Your task to perform on an android device: Open the Play Movies app and select the watchlist tab. Image 0: 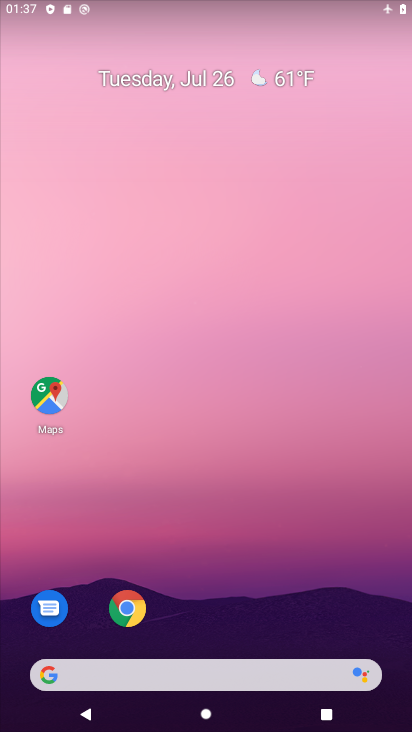
Step 0: drag from (49, 506) to (245, 167)
Your task to perform on an android device: Open the Play Movies app and select the watchlist tab. Image 1: 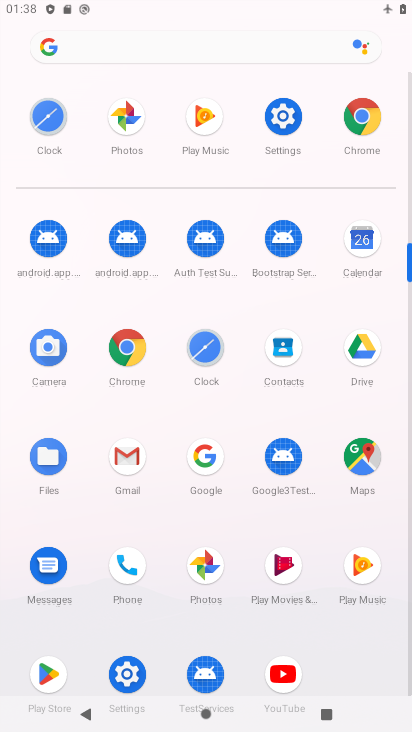
Step 1: click (301, 563)
Your task to perform on an android device: Open the Play Movies app and select the watchlist tab. Image 2: 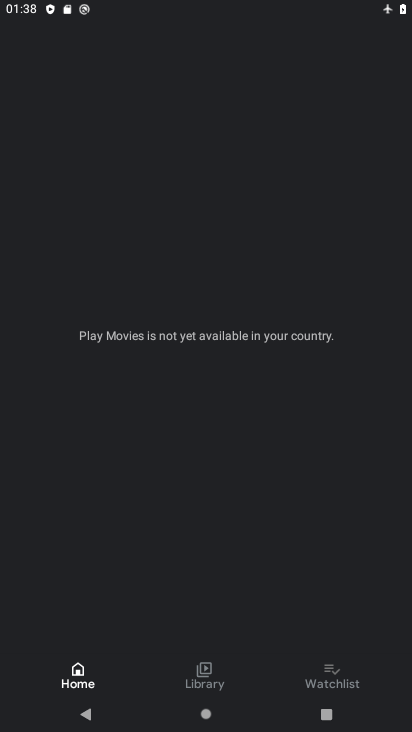
Step 2: click (321, 658)
Your task to perform on an android device: Open the Play Movies app and select the watchlist tab. Image 3: 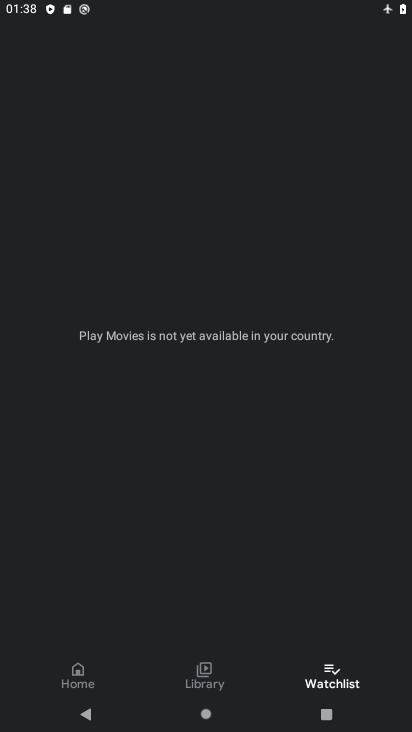
Step 3: task complete